Your task to perform on an android device: turn off improve location accuracy Image 0: 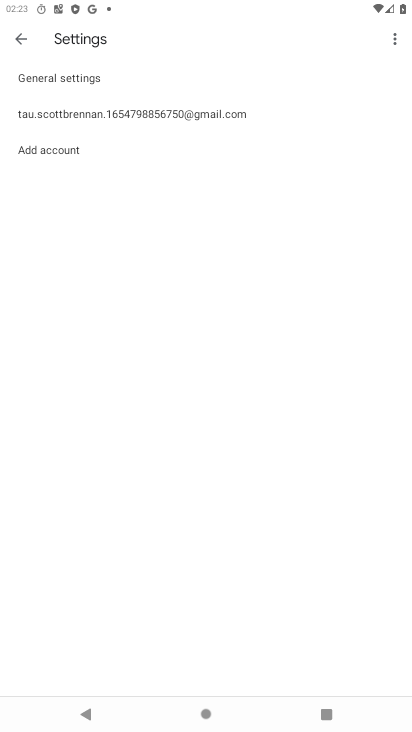
Step 0: drag from (239, 606) to (256, 158)
Your task to perform on an android device: turn off improve location accuracy Image 1: 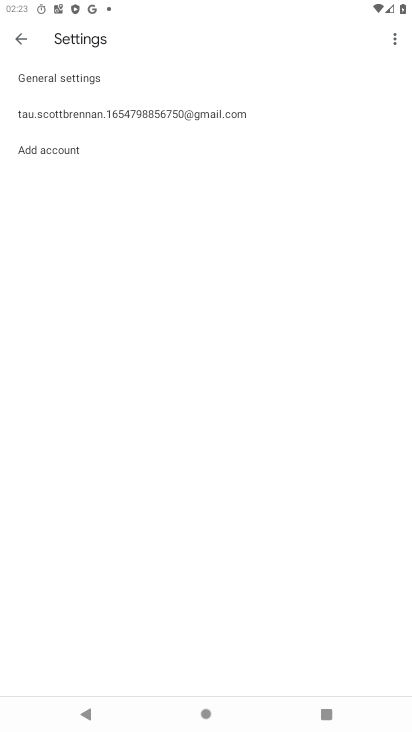
Step 1: press home button
Your task to perform on an android device: turn off improve location accuracy Image 2: 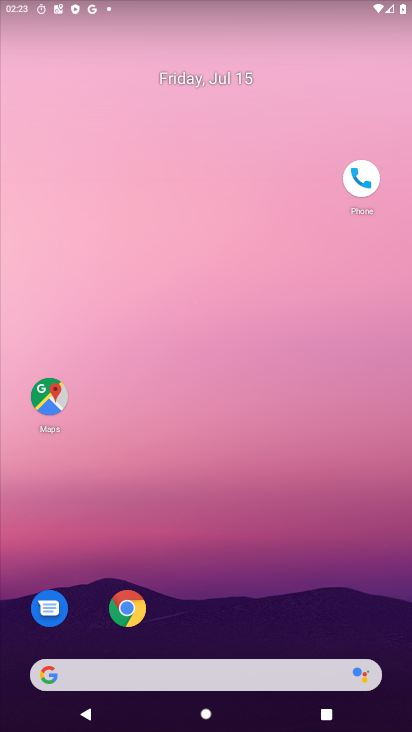
Step 2: drag from (197, 485) to (201, 151)
Your task to perform on an android device: turn off improve location accuracy Image 3: 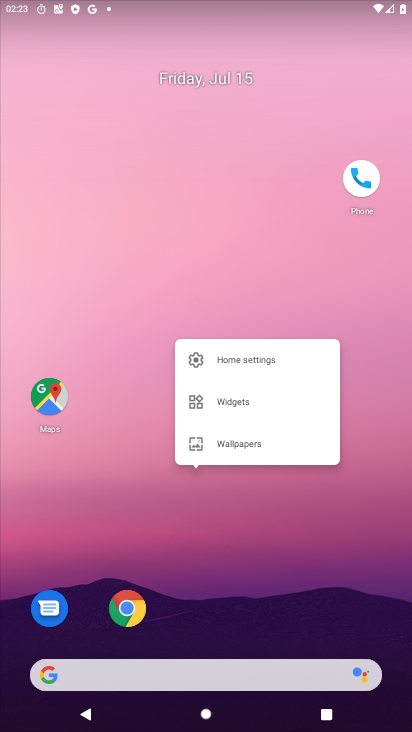
Step 3: drag from (175, 609) to (243, 127)
Your task to perform on an android device: turn off improve location accuracy Image 4: 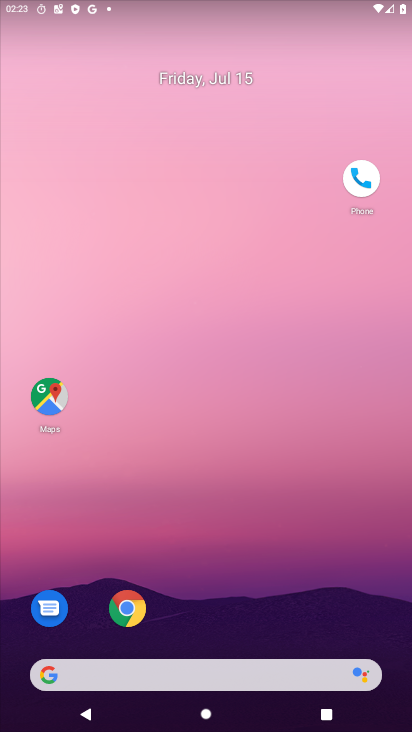
Step 4: click (246, 90)
Your task to perform on an android device: turn off improve location accuracy Image 5: 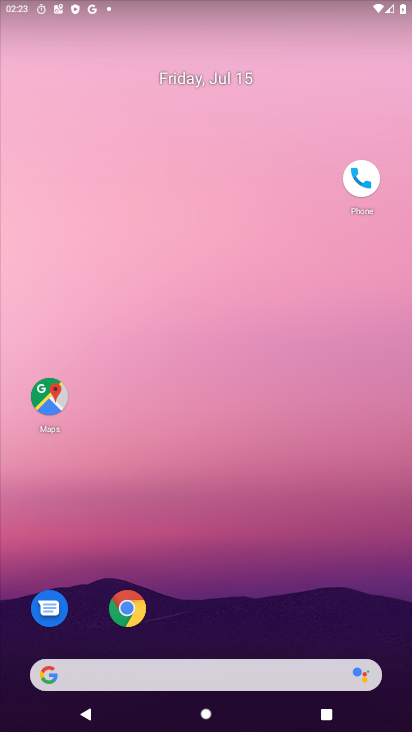
Step 5: drag from (184, 610) to (172, 8)
Your task to perform on an android device: turn off improve location accuracy Image 6: 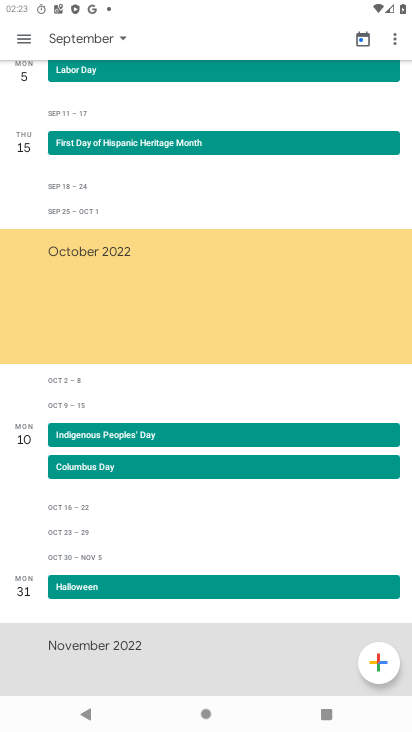
Step 6: press home button
Your task to perform on an android device: turn off improve location accuracy Image 7: 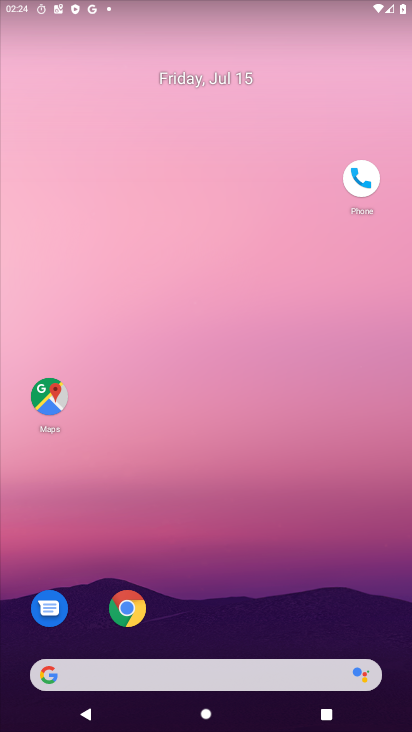
Step 7: drag from (225, 614) to (53, 24)
Your task to perform on an android device: turn off improve location accuracy Image 8: 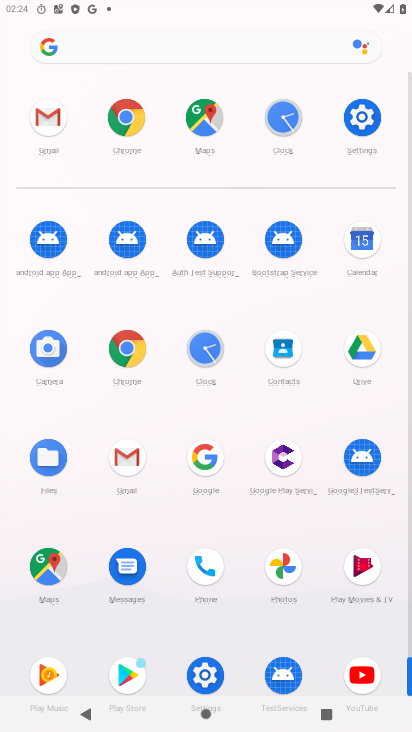
Step 8: click (360, 157)
Your task to perform on an android device: turn off improve location accuracy Image 9: 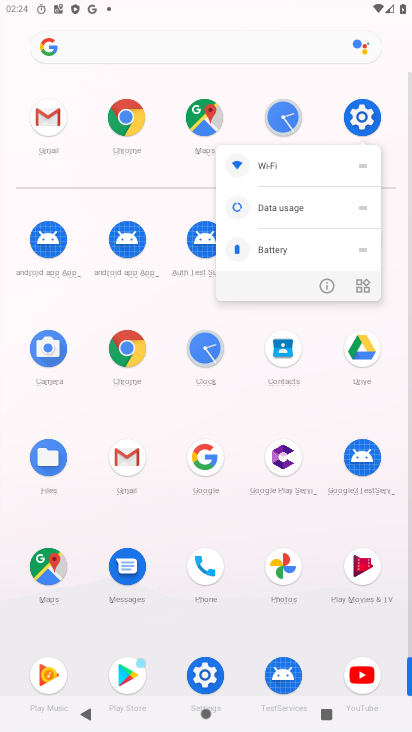
Step 9: click (328, 279)
Your task to perform on an android device: turn off improve location accuracy Image 10: 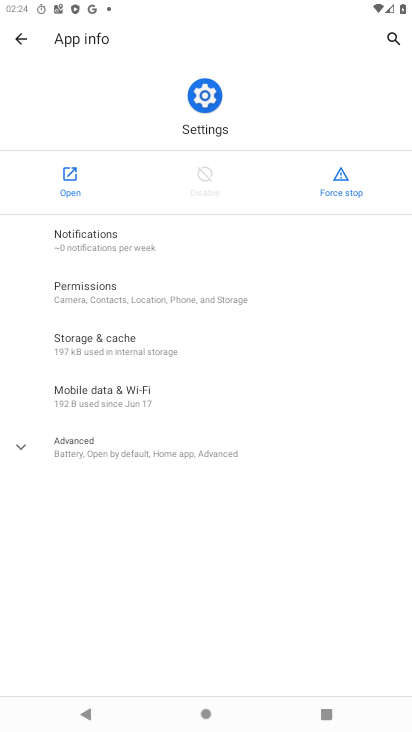
Step 10: click (56, 177)
Your task to perform on an android device: turn off improve location accuracy Image 11: 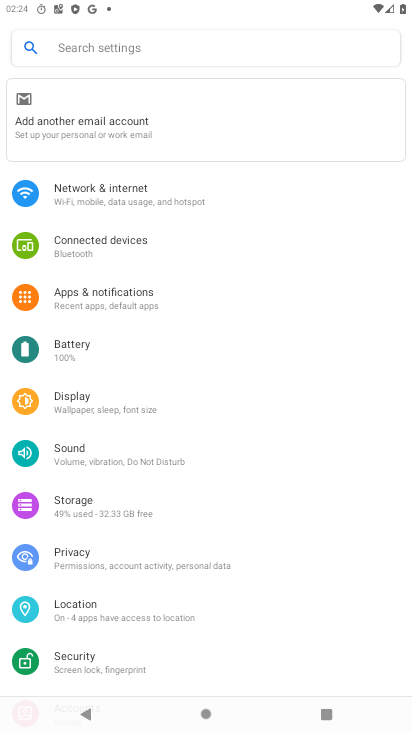
Step 11: drag from (140, 581) to (209, 79)
Your task to perform on an android device: turn off improve location accuracy Image 12: 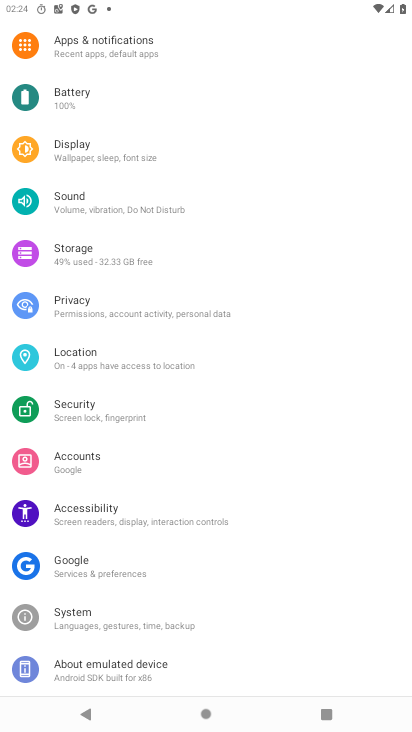
Step 12: click (89, 355)
Your task to perform on an android device: turn off improve location accuracy Image 13: 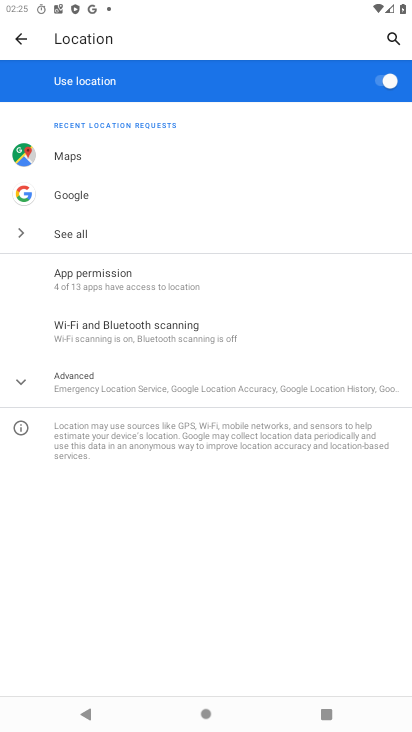
Step 13: click (119, 379)
Your task to perform on an android device: turn off improve location accuracy Image 14: 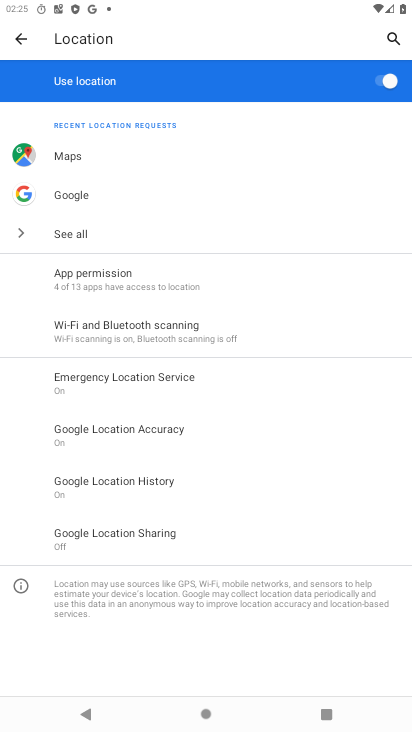
Step 14: click (183, 435)
Your task to perform on an android device: turn off improve location accuracy Image 15: 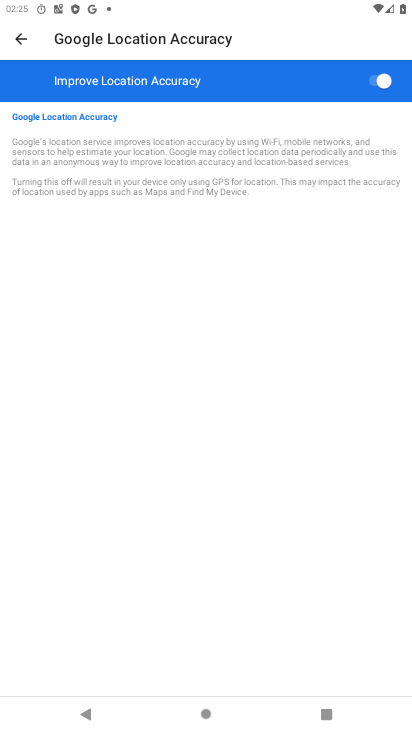
Step 15: click (372, 78)
Your task to perform on an android device: turn off improve location accuracy Image 16: 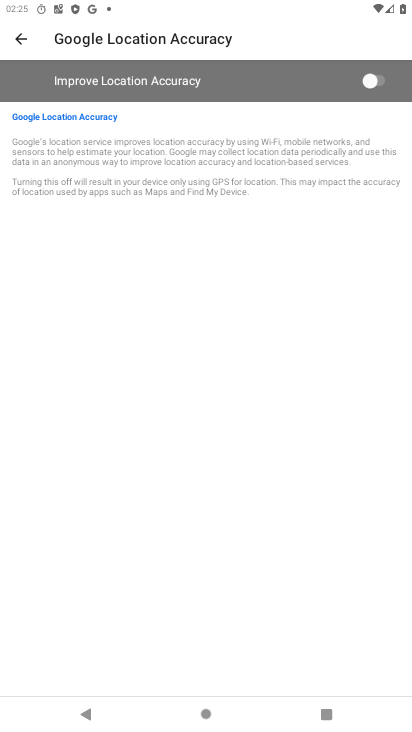
Step 16: task complete